Your task to perform on an android device: turn pop-ups off in chrome Image 0: 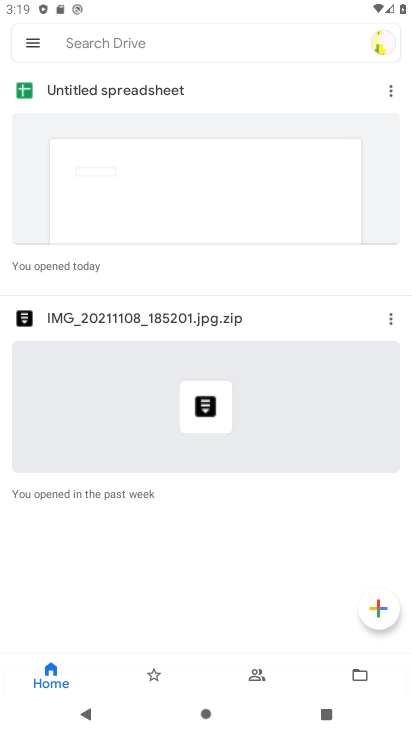
Step 0: press home button
Your task to perform on an android device: turn pop-ups off in chrome Image 1: 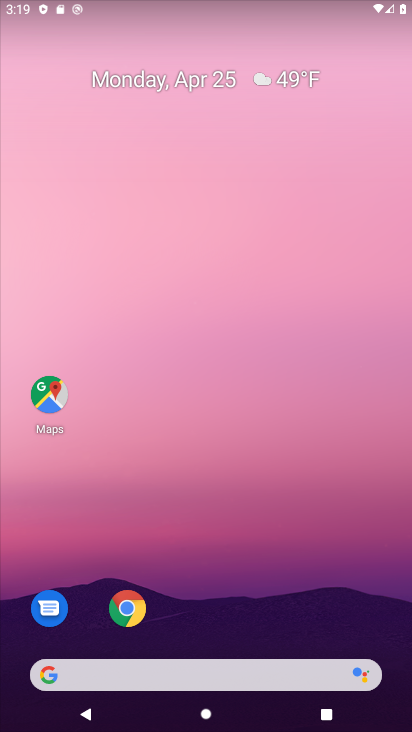
Step 1: click (124, 607)
Your task to perform on an android device: turn pop-ups off in chrome Image 2: 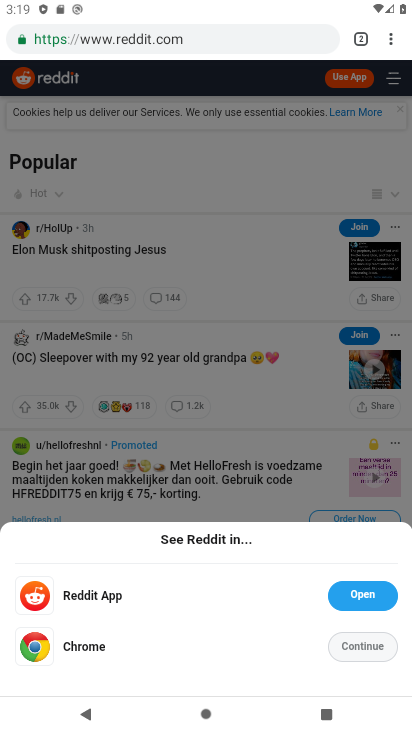
Step 2: drag from (388, 33) to (270, 504)
Your task to perform on an android device: turn pop-ups off in chrome Image 3: 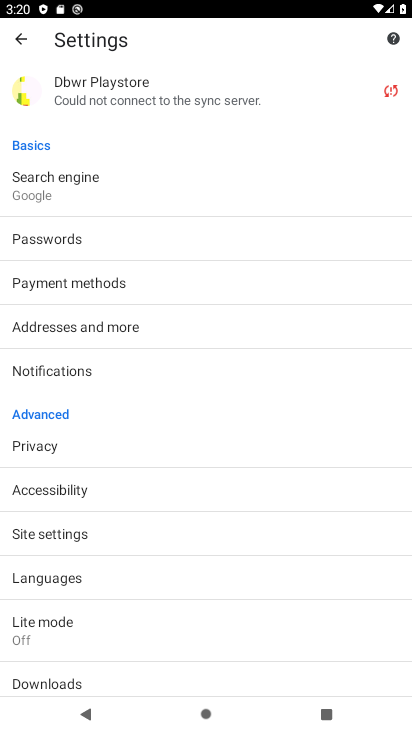
Step 3: click (100, 532)
Your task to perform on an android device: turn pop-ups off in chrome Image 4: 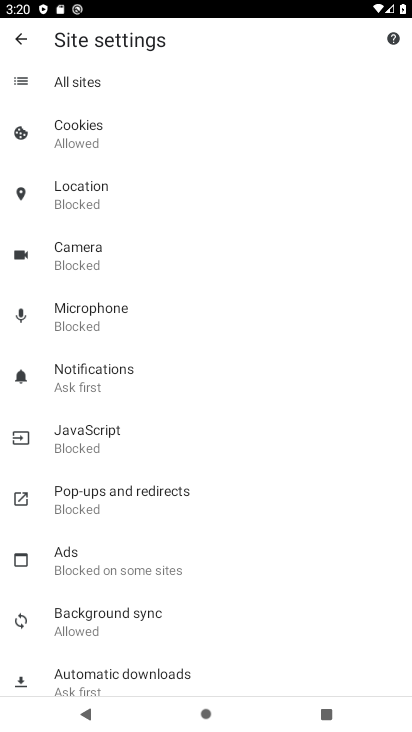
Step 4: click (173, 487)
Your task to perform on an android device: turn pop-ups off in chrome Image 5: 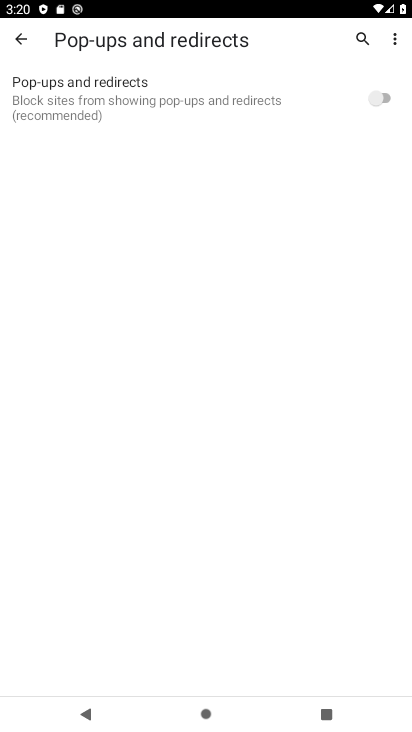
Step 5: task complete